Your task to perform on an android device: What is the recent news? Image 0: 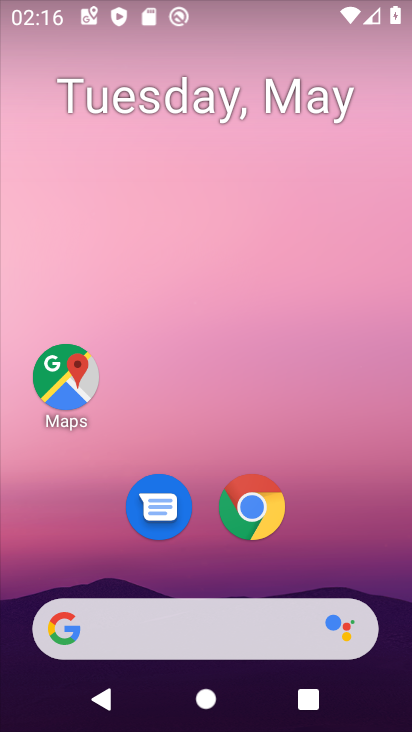
Step 0: drag from (298, 539) to (316, 138)
Your task to perform on an android device: What is the recent news? Image 1: 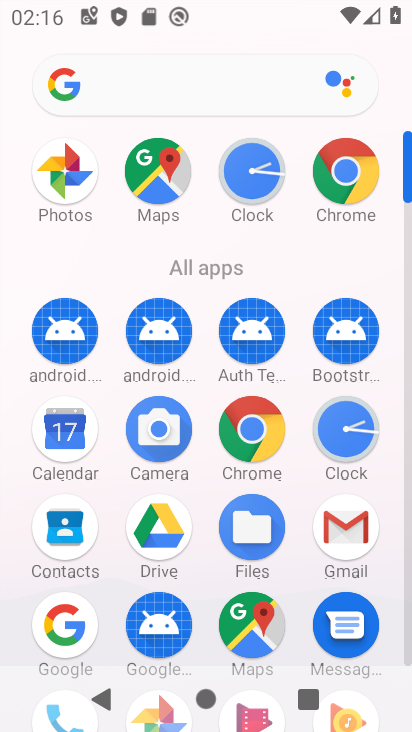
Step 1: click (51, 618)
Your task to perform on an android device: What is the recent news? Image 2: 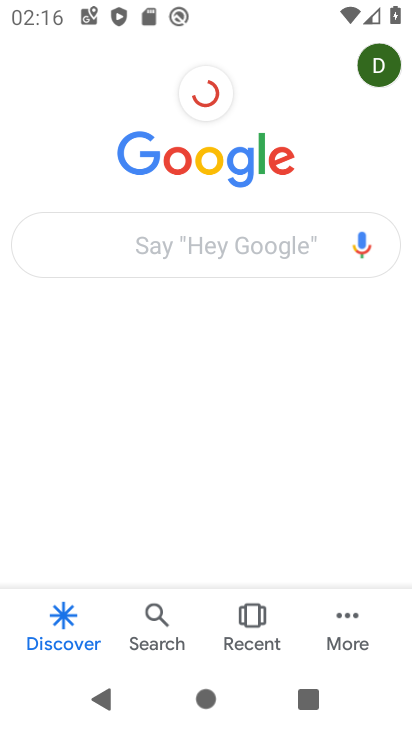
Step 2: click (152, 247)
Your task to perform on an android device: What is the recent news? Image 3: 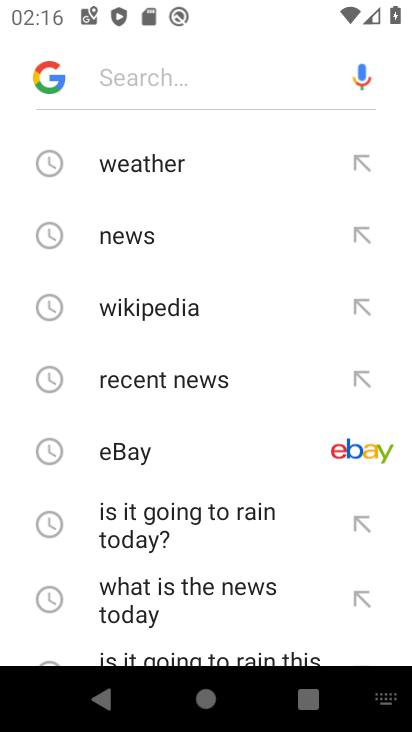
Step 3: type "recent news"
Your task to perform on an android device: What is the recent news? Image 4: 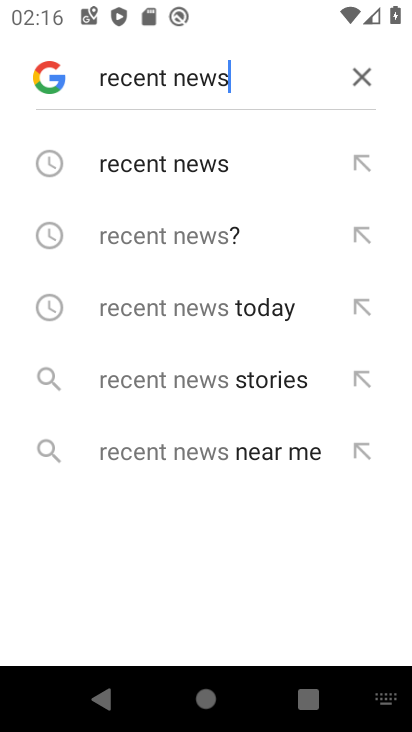
Step 4: click (174, 171)
Your task to perform on an android device: What is the recent news? Image 5: 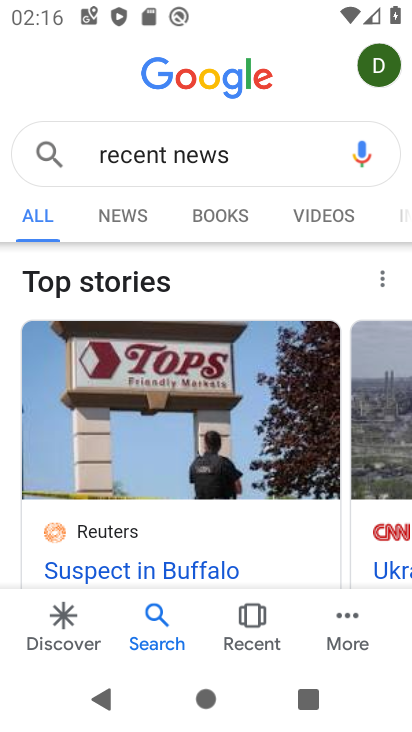
Step 5: task complete